Your task to perform on an android device: Go to privacy settings Image 0: 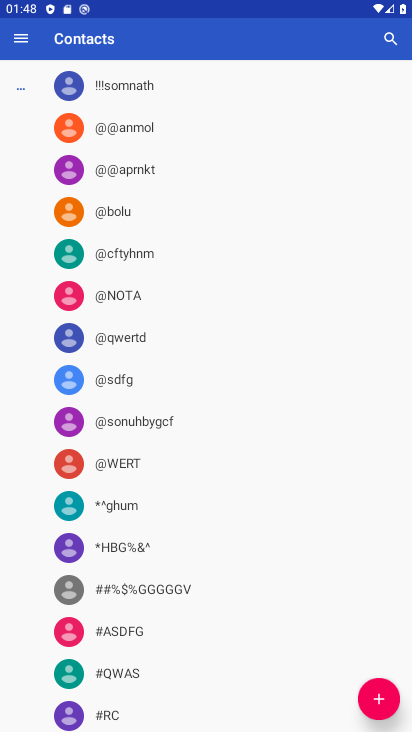
Step 0: press back button
Your task to perform on an android device: Go to privacy settings Image 1: 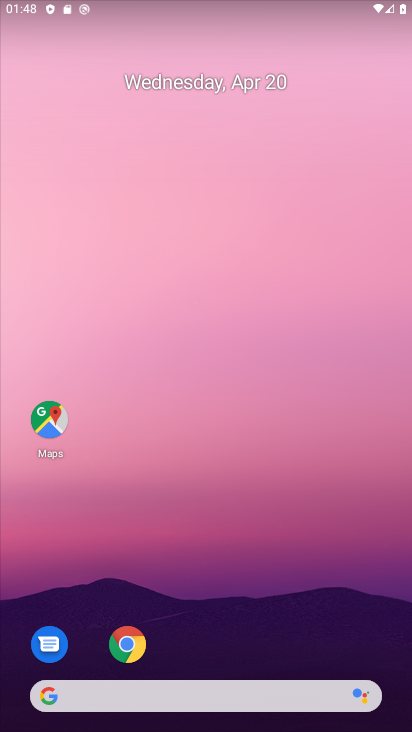
Step 1: drag from (222, 645) to (319, 36)
Your task to perform on an android device: Go to privacy settings Image 2: 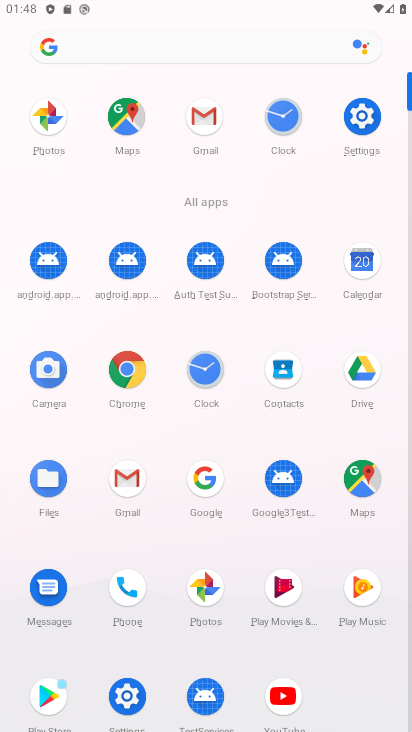
Step 2: click (111, 383)
Your task to perform on an android device: Go to privacy settings Image 3: 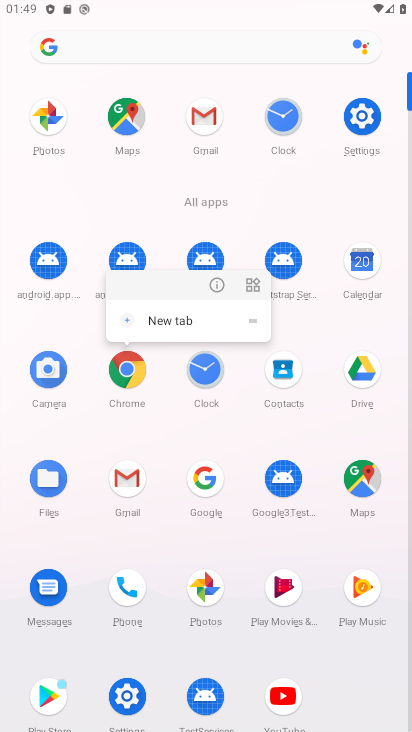
Step 3: click (134, 383)
Your task to perform on an android device: Go to privacy settings Image 4: 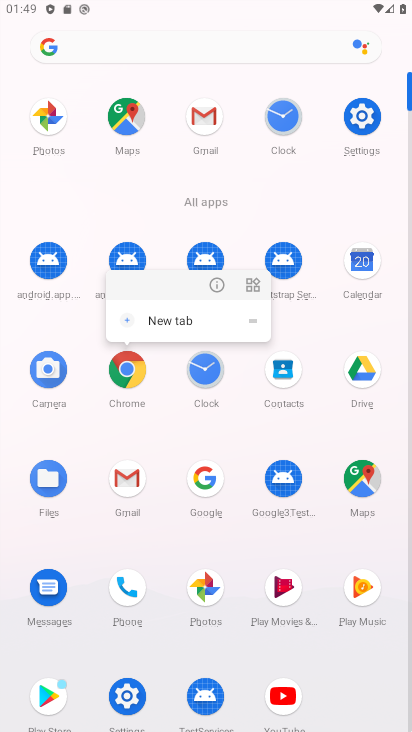
Step 4: click (131, 380)
Your task to perform on an android device: Go to privacy settings Image 5: 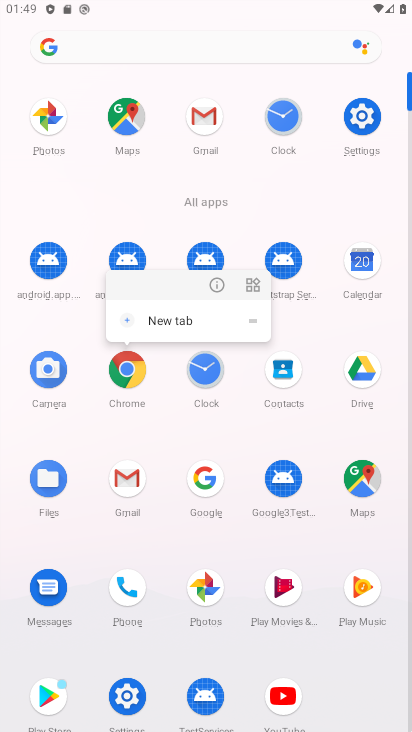
Step 5: click (131, 375)
Your task to perform on an android device: Go to privacy settings Image 6: 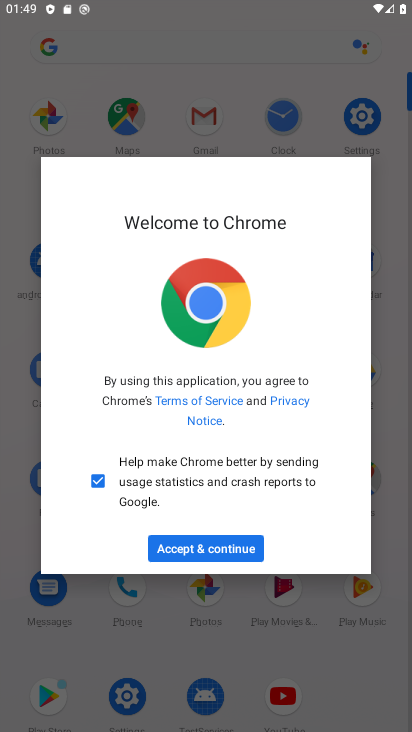
Step 6: click (232, 550)
Your task to perform on an android device: Go to privacy settings Image 7: 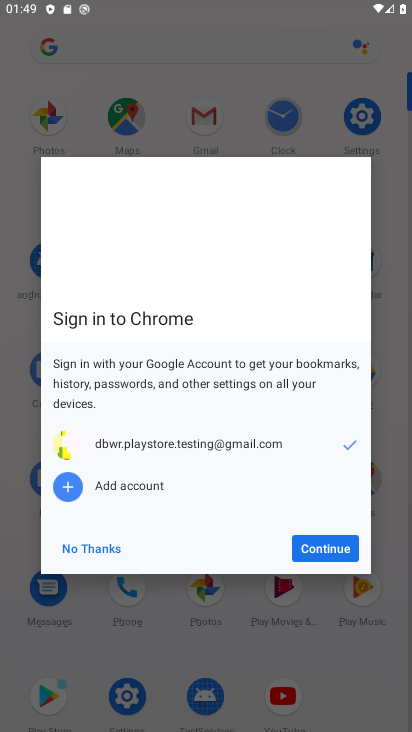
Step 7: click (314, 549)
Your task to perform on an android device: Go to privacy settings Image 8: 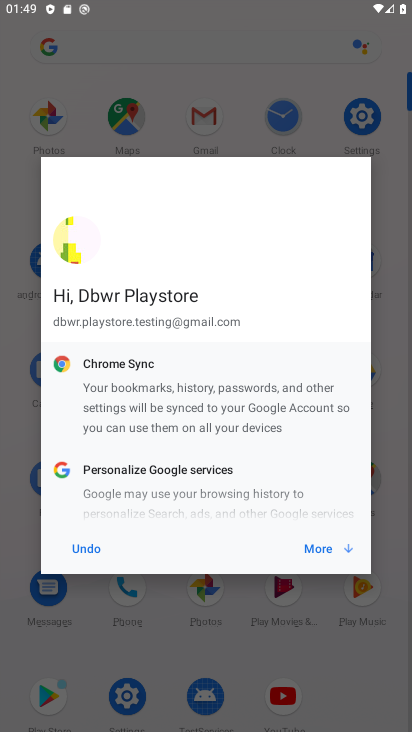
Step 8: click (314, 549)
Your task to perform on an android device: Go to privacy settings Image 9: 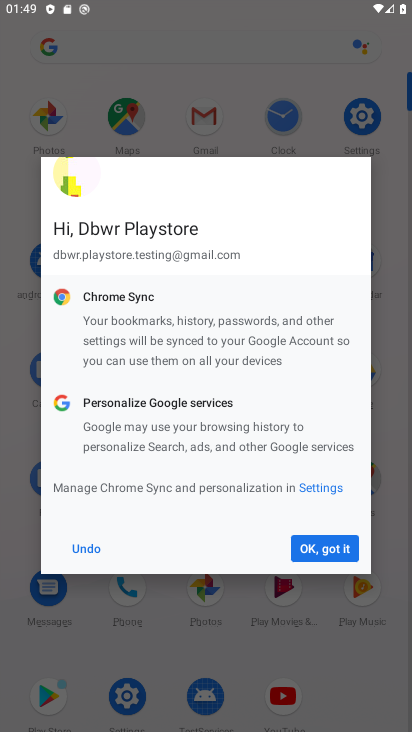
Step 9: click (314, 549)
Your task to perform on an android device: Go to privacy settings Image 10: 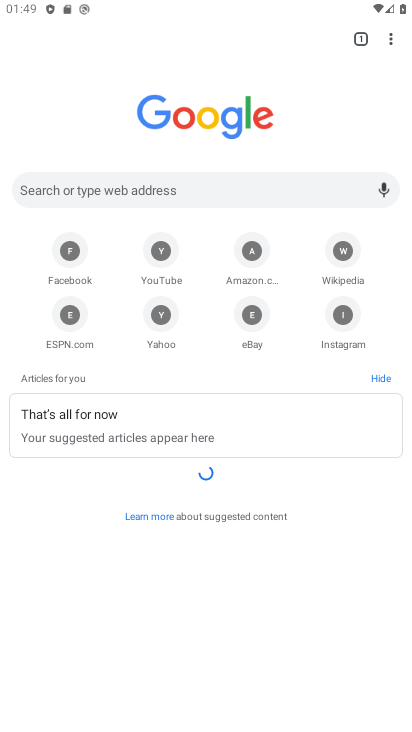
Step 10: drag from (383, 41) to (307, 328)
Your task to perform on an android device: Go to privacy settings Image 11: 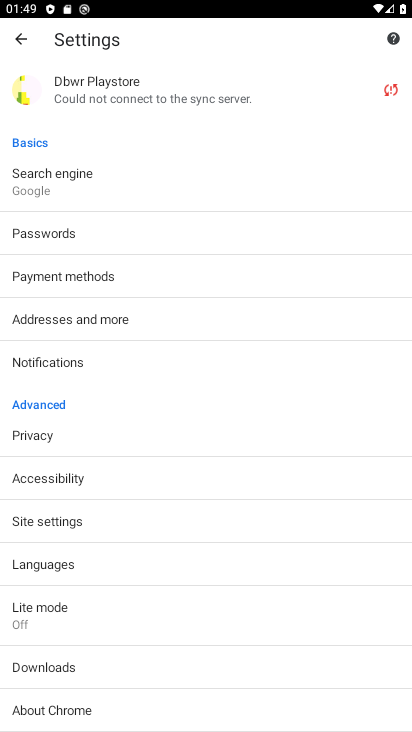
Step 11: click (100, 439)
Your task to perform on an android device: Go to privacy settings Image 12: 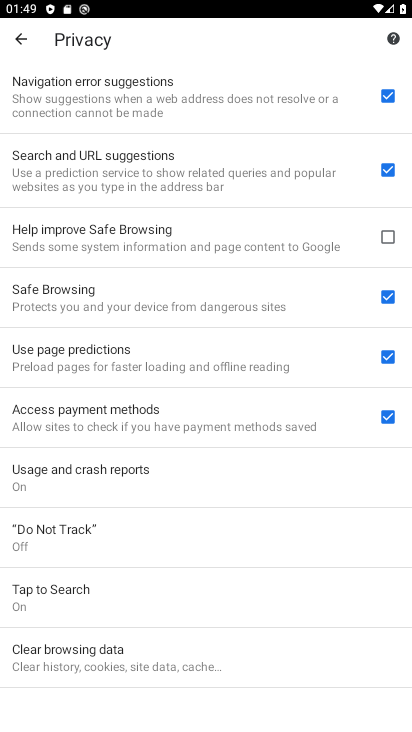
Step 12: task complete